Your task to perform on an android device: Search for seafood restaurants on Google Maps Image 0: 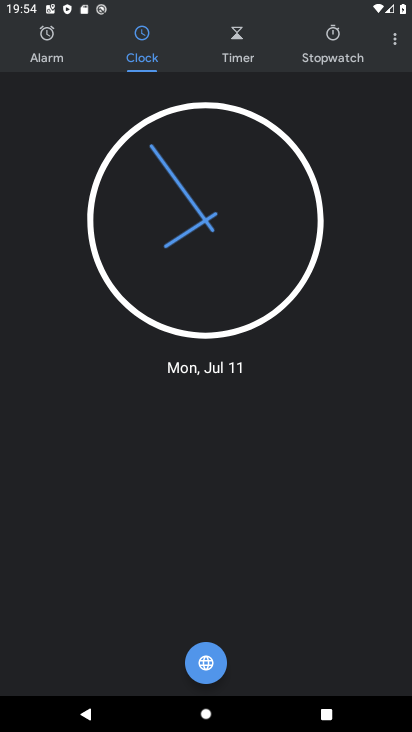
Step 0: press home button
Your task to perform on an android device: Search for seafood restaurants on Google Maps Image 1: 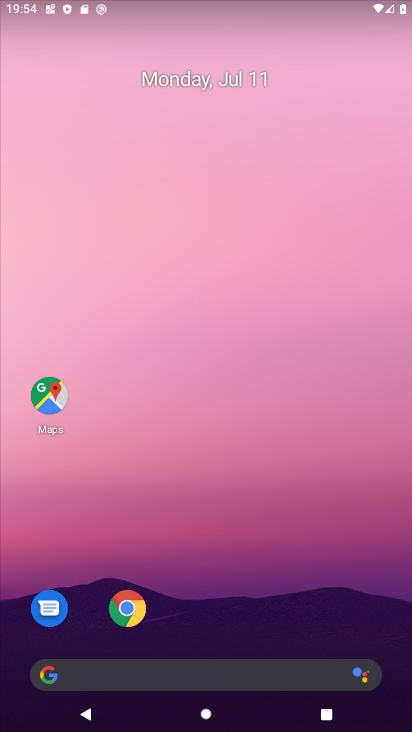
Step 1: click (56, 405)
Your task to perform on an android device: Search for seafood restaurants on Google Maps Image 2: 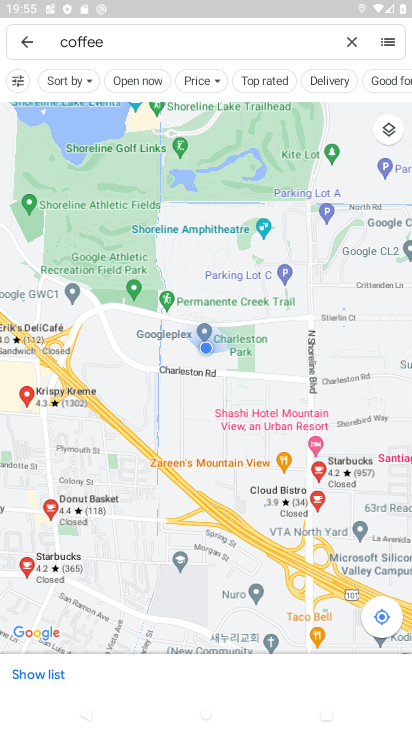
Step 2: click (143, 38)
Your task to perform on an android device: Search for seafood restaurants on Google Maps Image 3: 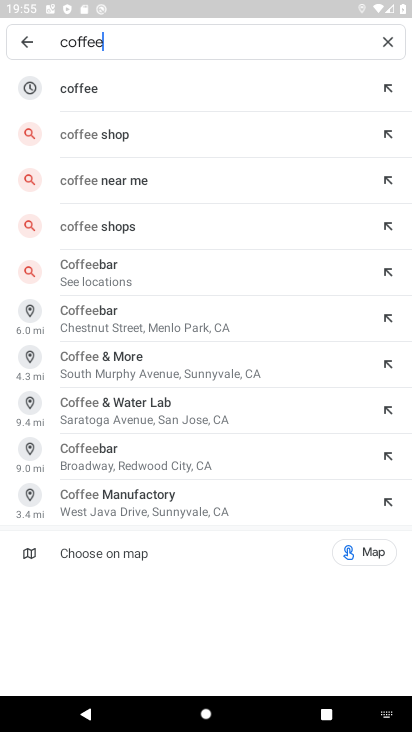
Step 3: click (378, 48)
Your task to perform on an android device: Search for seafood restaurants on Google Maps Image 4: 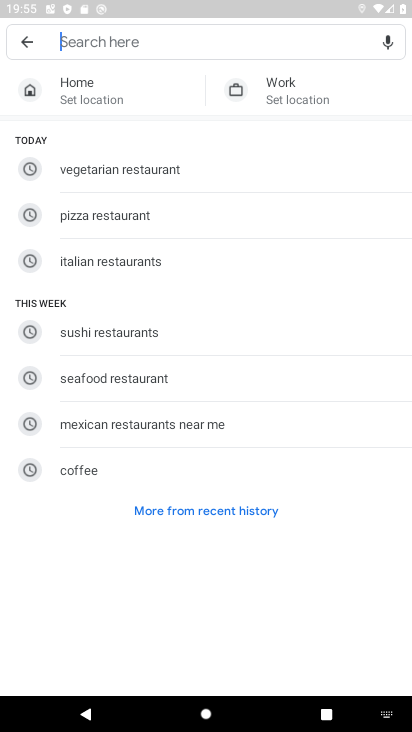
Step 4: click (112, 367)
Your task to perform on an android device: Search for seafood restaurants on Google Maps Image 5: 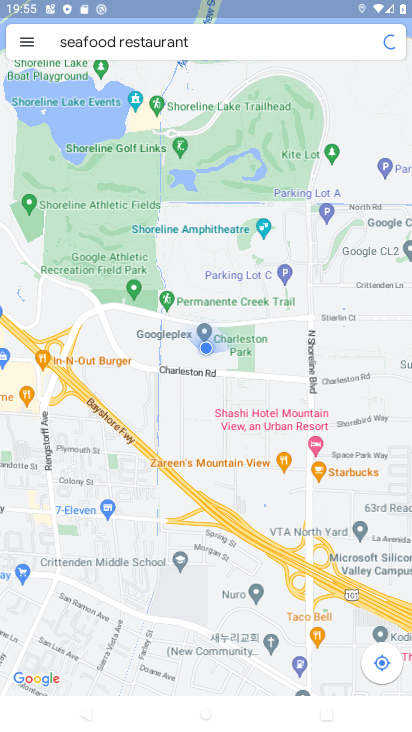
Step 5: task complete